Your task to perform on an android device: toggle priority inbox in the gmail app Image 0: 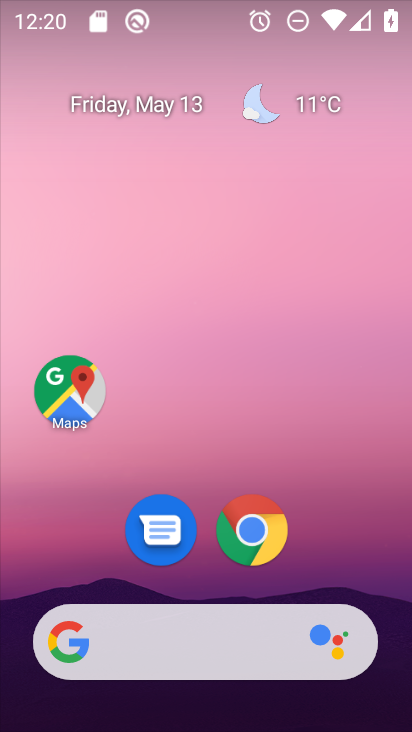
Step 0: drag from (216, 619) to (321, 108)
Your task to perform on an android device: toggle priority inbox in the gmail app Image 1: 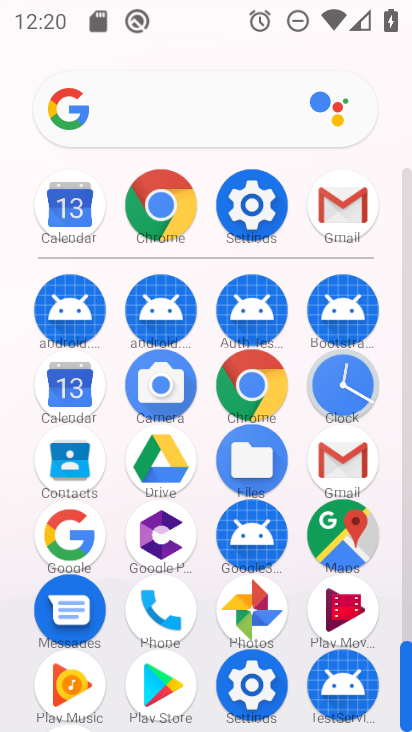
Step 1: click (340, 467)
Your task to perform on an android device: toggle priority inbox in the gmail app Image 2: 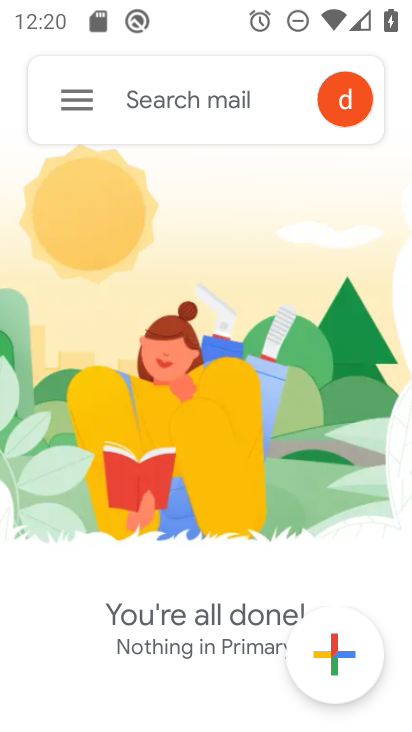
Step 2: click (70, 103)
Your task to perform on an android device: toggle priority inbox in the gmail app Image 3: 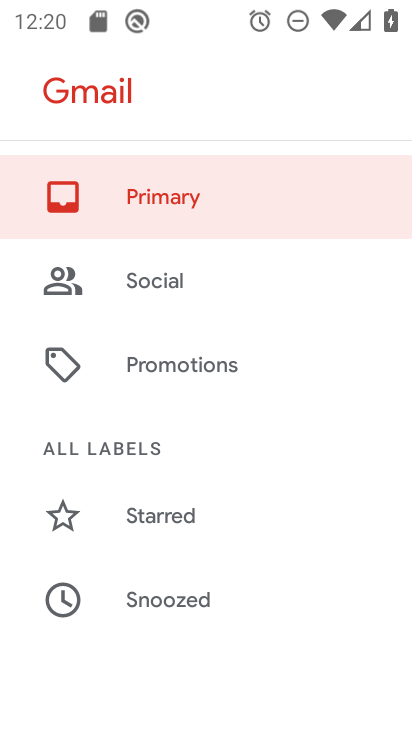
Step 3: drag from (213, 645) to (364, 130)
Your task to perform on an android device: toggle priority inbox in the gmail app Image 4: 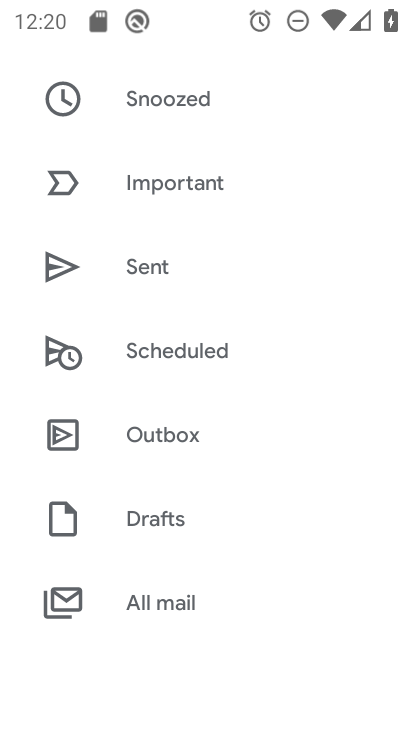
Step 4: drag from (204, 613) to (271, 167)
Your task to perform on an android device: toggle priority inbox in the gmail app Image 5: 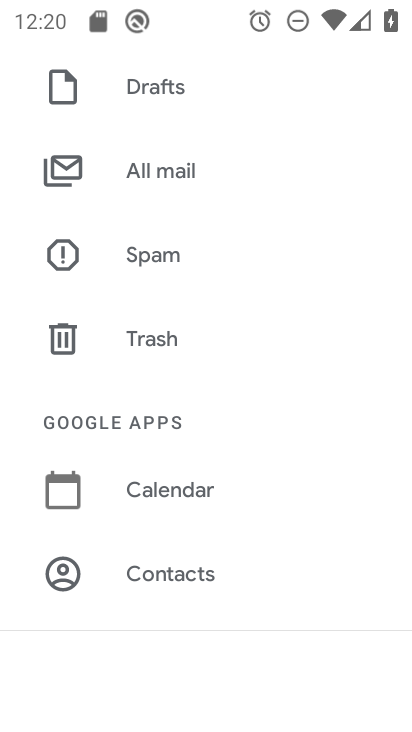
Step 5: drag from (239, 595) to (285, 238)
Your task to perform on an android device: toggle priority inbox in the gmail app Image 6: 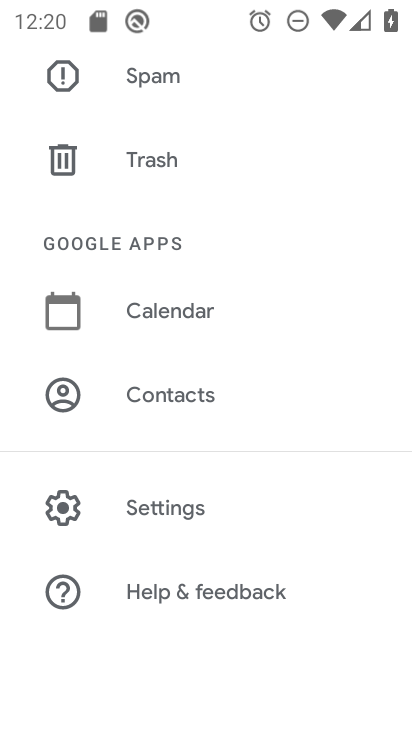
Step 6: click (158, 506)
Your task to perform on an android device: toggle priority inbox in the gmail app Image 7: 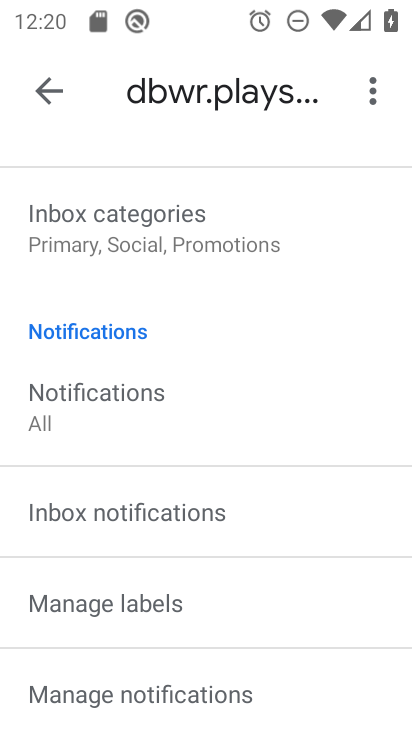
Step 7: drag from (335, 212) to (260, 639)
Your task to perform on an android device: toggle priority inbox in the gmail app Image 8: 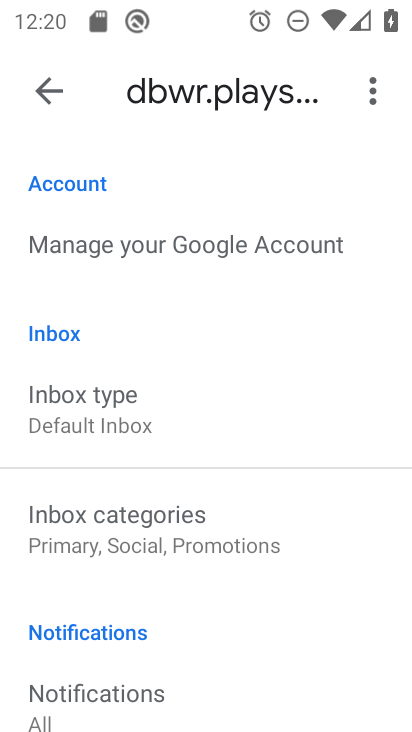
Step 8: click (92, 414)
Your task to perform on an android device: toggle priority inbox in the gmail app Image 9: 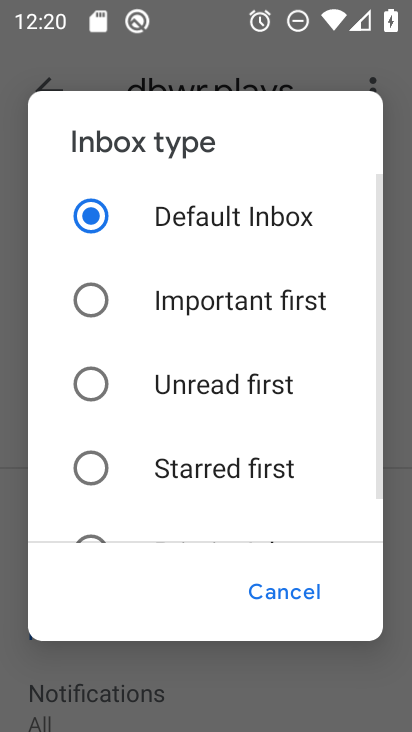
Step 9: drag from (117, 507) to (215, 210)
Your task to perform on an android device: toggle priority inbox in the gmail app Image 10: 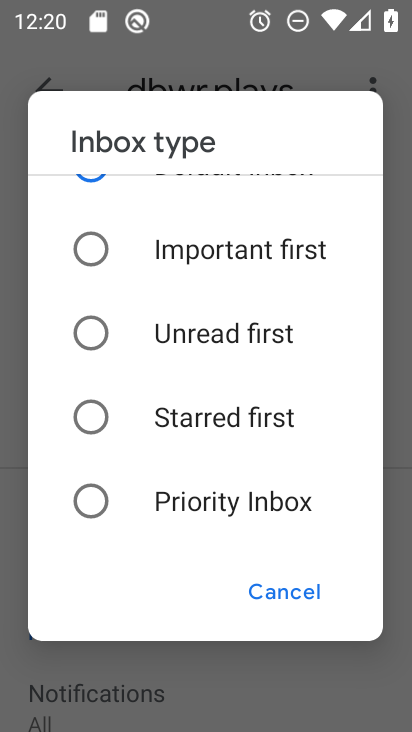
Step 10: click (99, 509)
Your task to perform on an android device: toggle priority inbox in the gmail app Image 11: 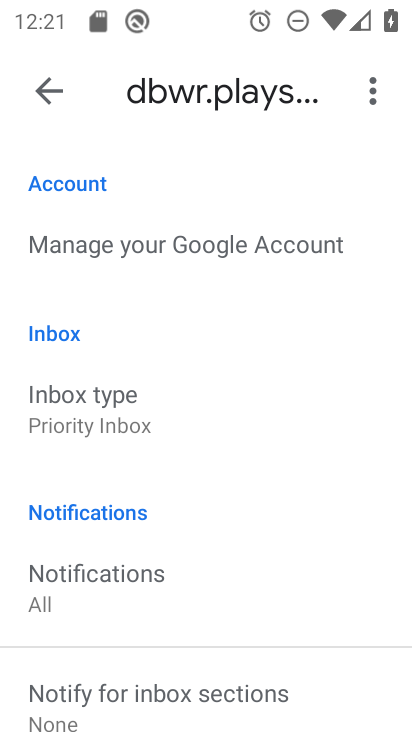
Step 11: task complete